Your task to perform on an android device: turn on showing notifications on the lock screen Image 0: 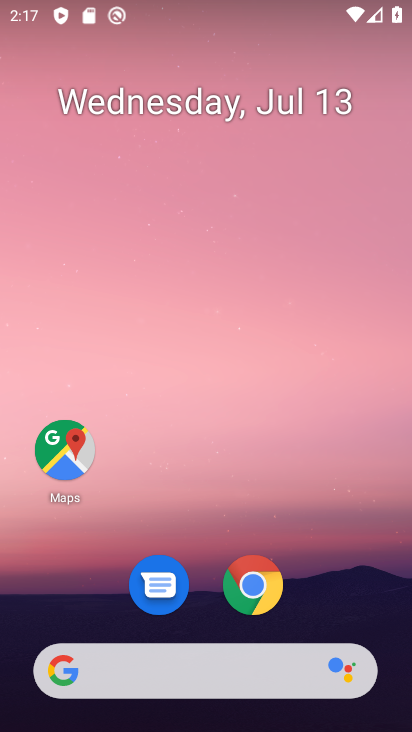
Step 0: press home button
Your task to perform on an android device: turn on showing notifications on the lock screen Image 1: 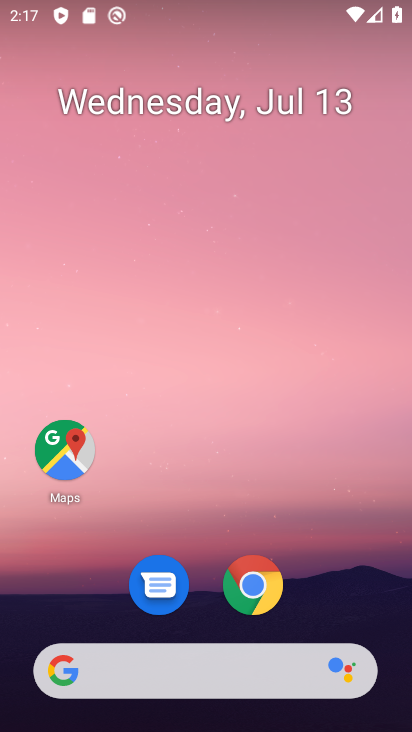
Step 1: drag from (177, 682) to (259, 201)
Your task to perform on an android device: turn on showing notifications on the lock screen Image 2: 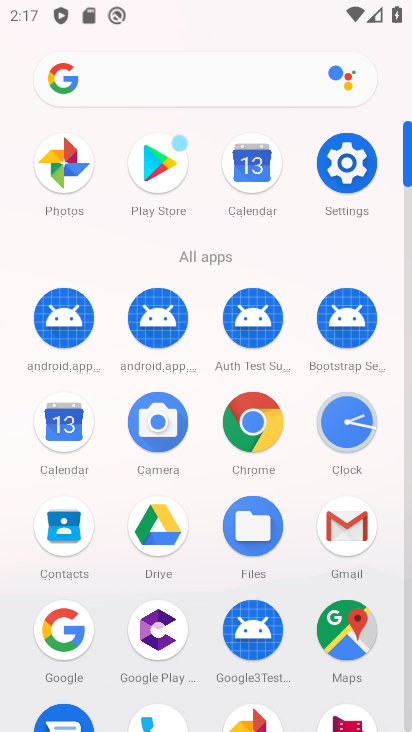
Step 2: click (355, 173)
Your task to perform on an android device: turn on showing notifications on the lock screen Image 3: 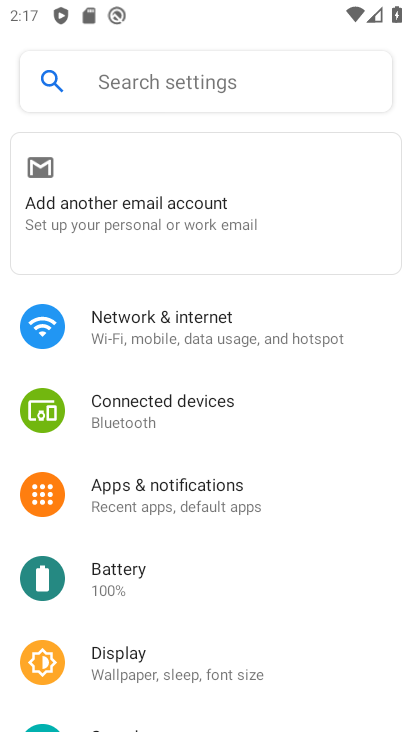
Step 3: click (172, 498)
Your task to perform on an android device: turn on showing notifications on the lock screen Image 4: 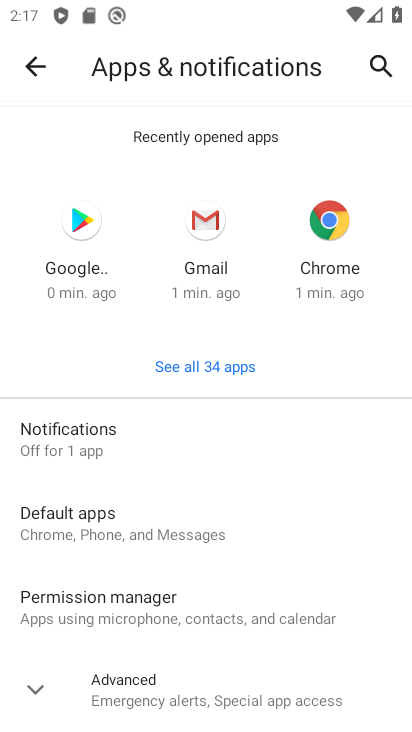
Step 4: click (98, 443)
Your task to perform on an android device: turn on showing notifications on the lock screen Image 5: 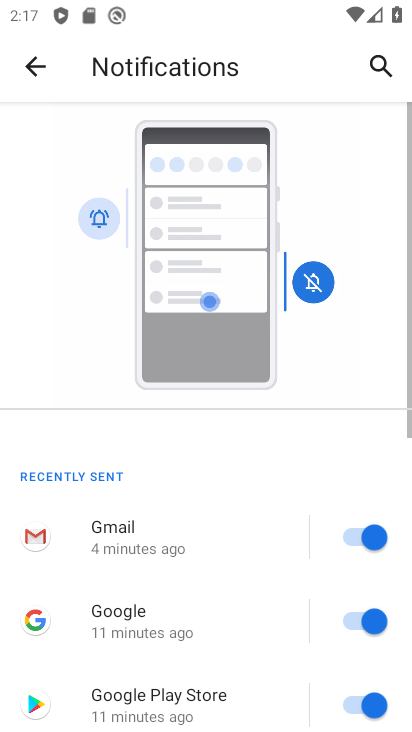
Step 5: drag from (213, 566) to (317, 42)
Your task to perform on an android device: turn on showing notifications on the lock screen Image 6: 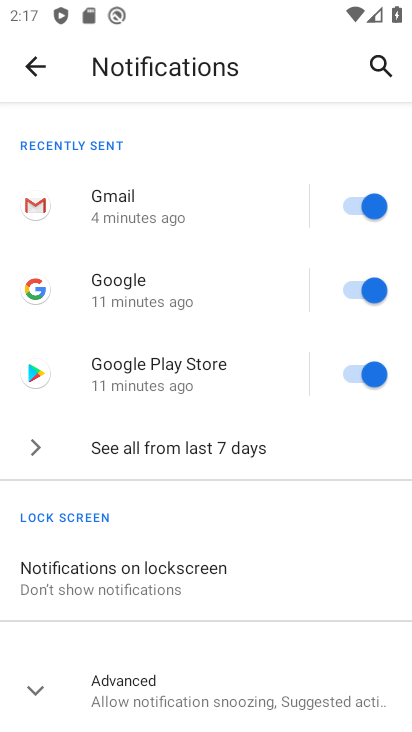
Step 6: click (158, 579)
Your task to perform on an android device: turn on showing notifications on the lock screen Image 7: 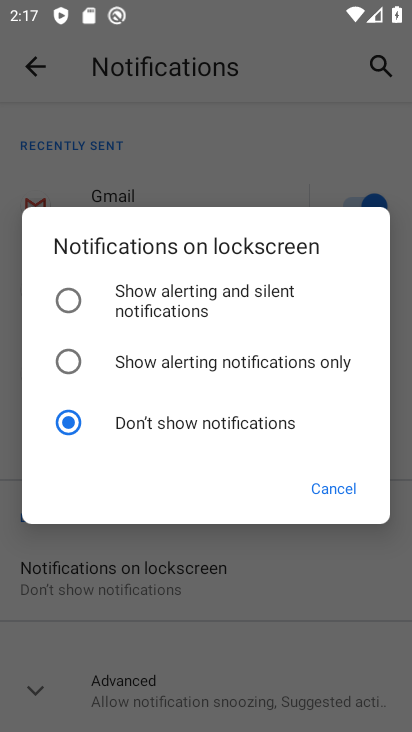
Step 7: click (67, 301)
Your task to perform on an android device: turn on showing notifications on the lock screen Image 8: 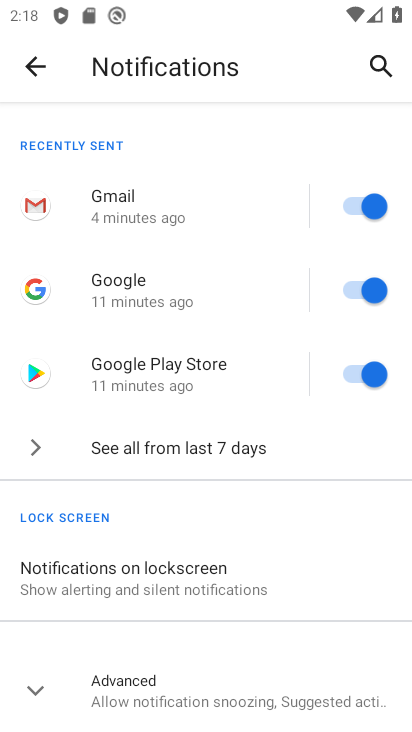
Step 8: task complete